Your task to perform on an android device: See recent photos Image 0: 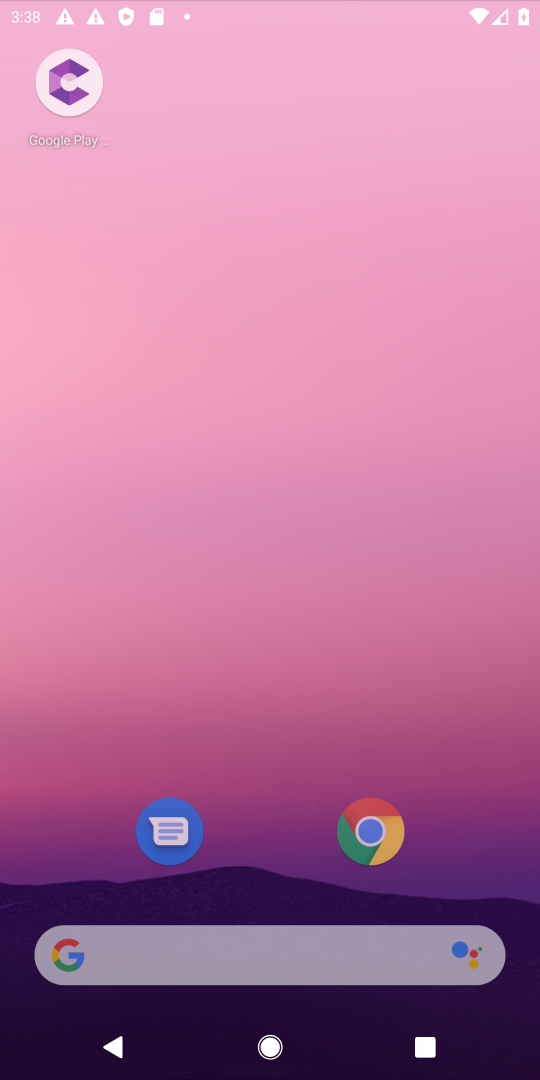
Step 0: press home button
Your task to perform on an android device: See recent photos Image 1: 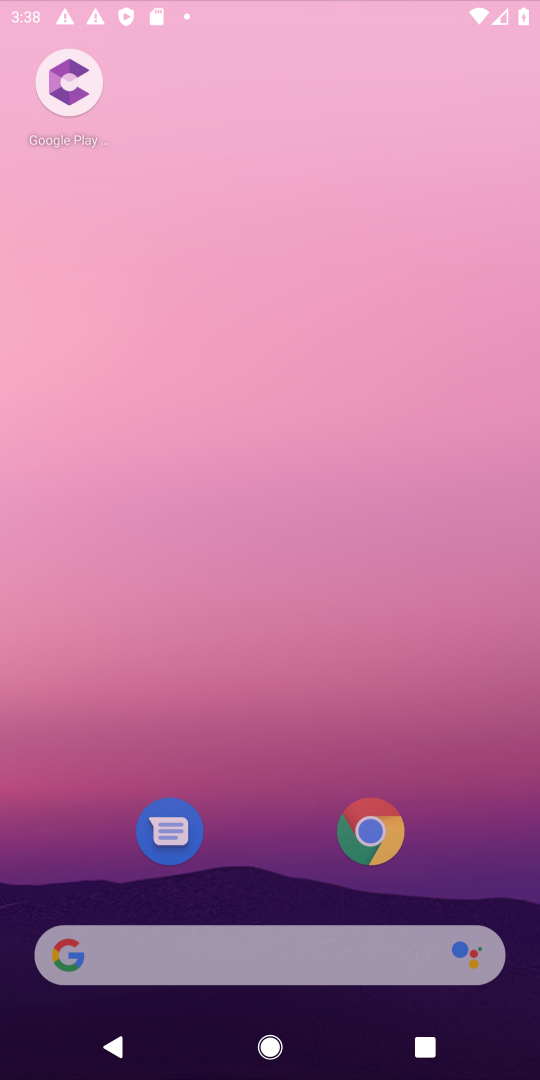
Step 1: click (339, 142)
Your task to perform on an android device: See recent photos Image 2: 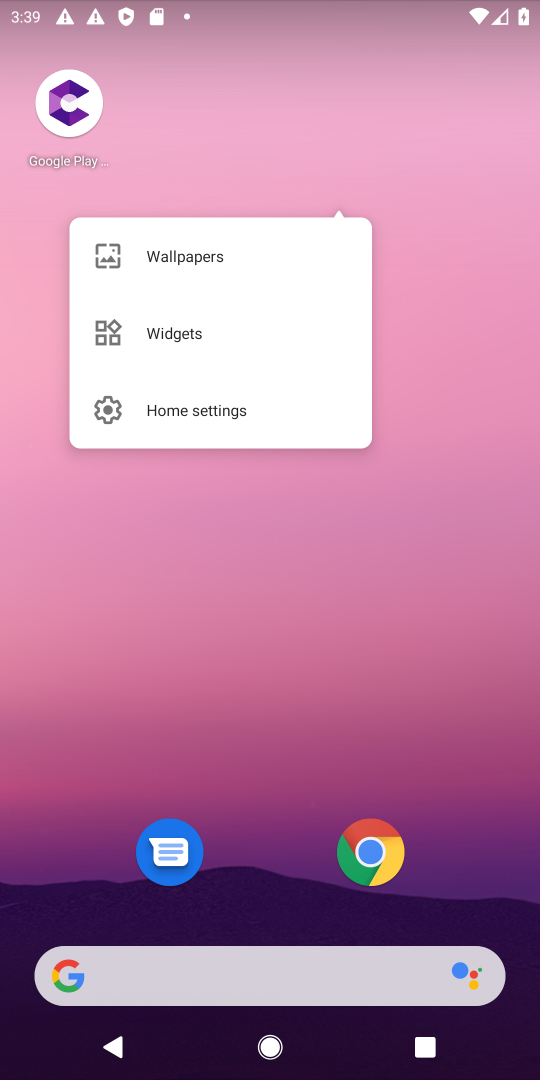
Step 2: click (390, 658)
Your task to perform on an android device: See recent photos Image 3: 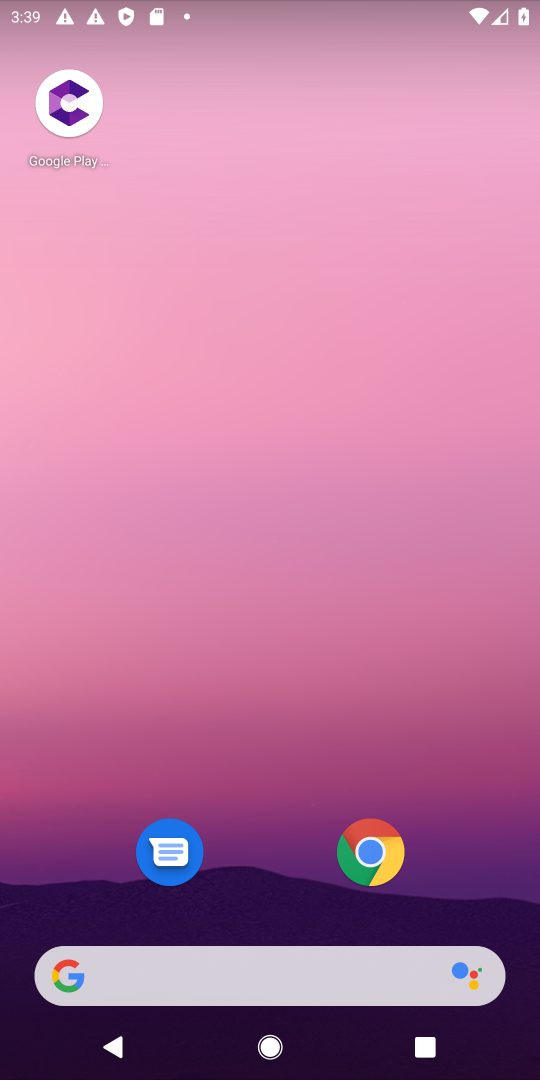
Step 3: drag from (257, 846) to (339, 173)
Your task to perform on an android device: See recent photos Image 4: 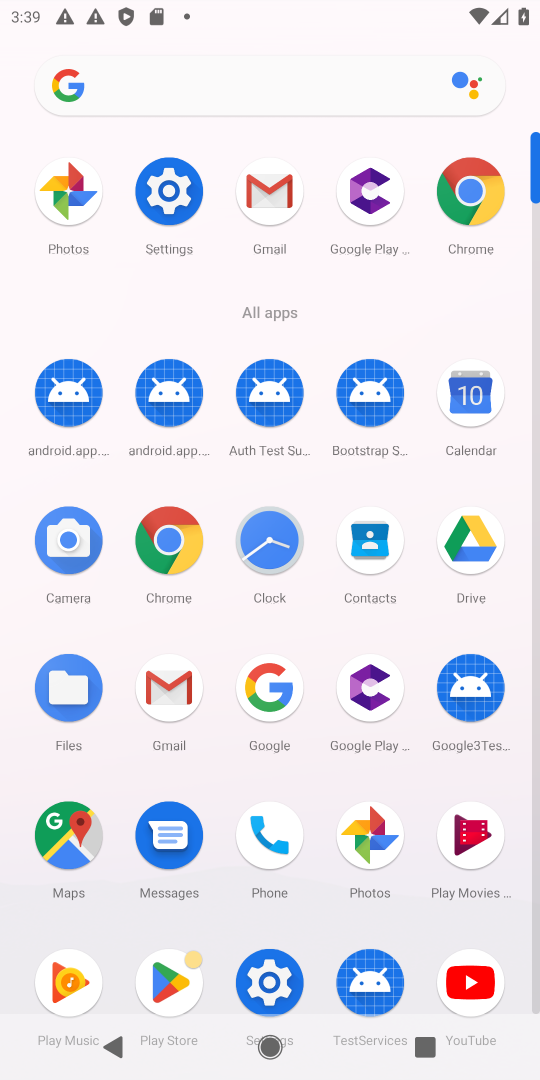
Step 4: click (369, 840)
Your task to perform on an android device: See recent photos Image 5: 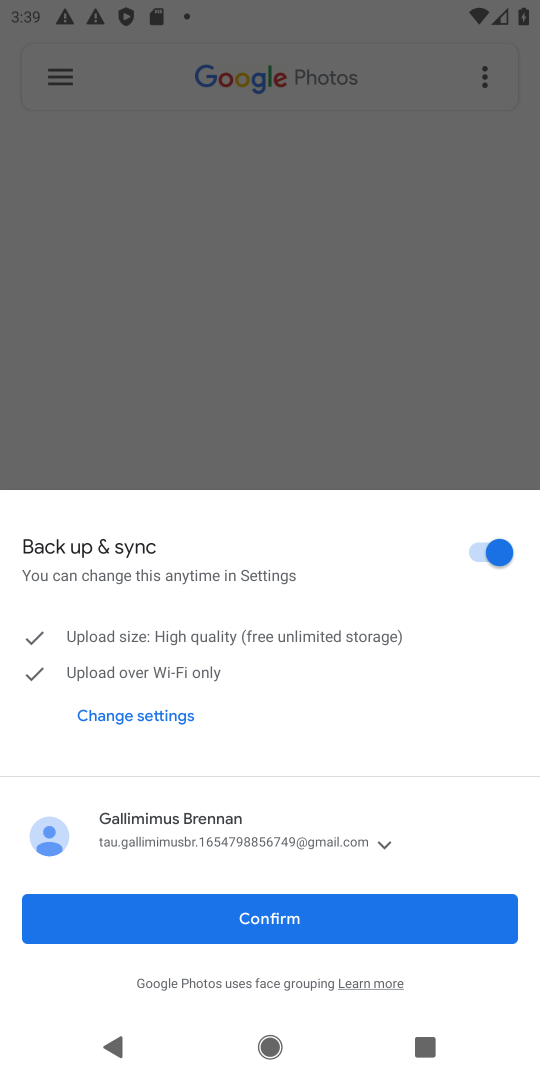
Step 5: click (261, 906)
Your task to perform on an android device: See recent photos Image 6: 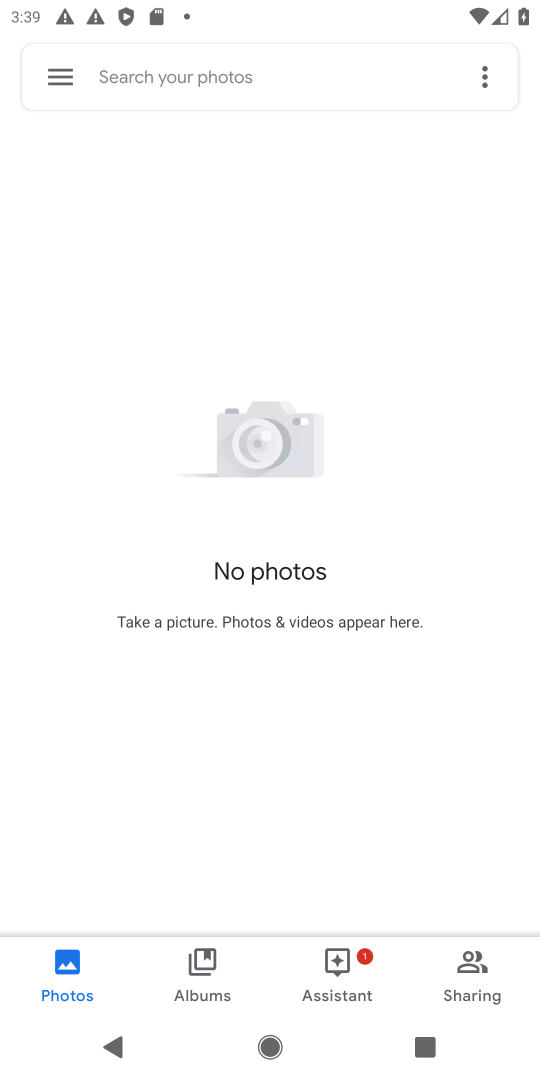
Step 6: task complete